Your task to perform on an android device: turn on sleep mode Image 0: 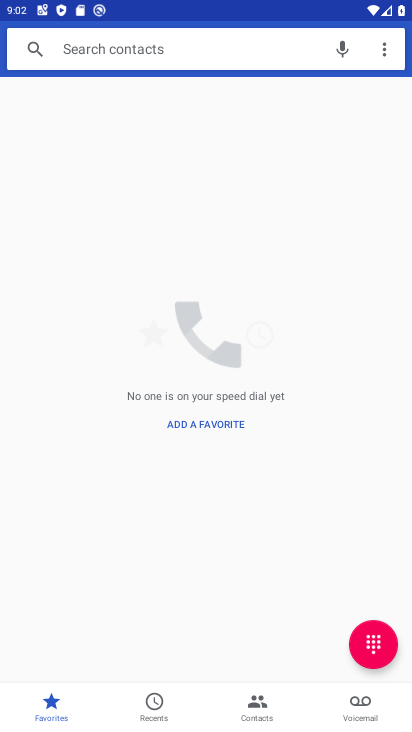
Step 0: press home button
Your task to perform on an android device: turn on sleep mode Image 1: 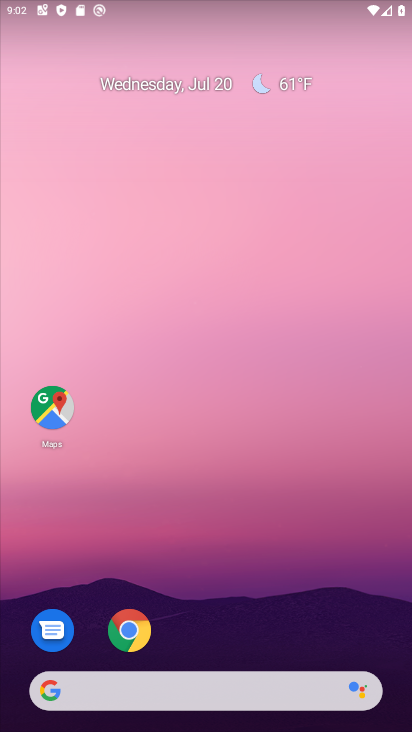
Step 1: drag from (297, 595) to (290, 8)
Your task to perform on an android device: turn on sleep mode Image 2: 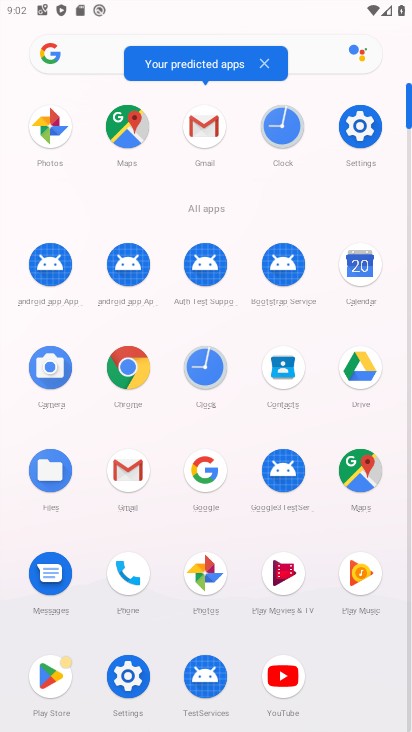
Step 2: click (359, 132)
Your task to perform on an android device: turn on sleep mode Image 3: 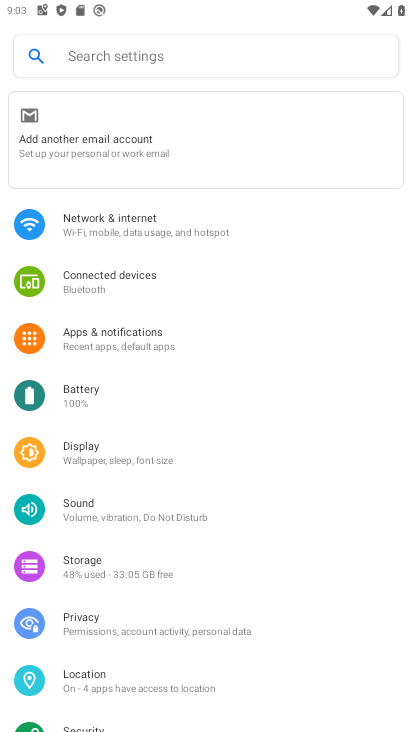
Step 3: click (114, 452)
Your task to perform on an android device: turn on sleep mode Image 4: 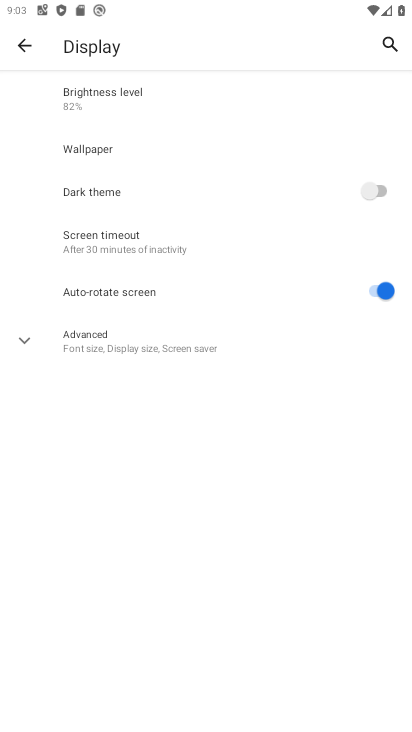
Step 4: task complete